Your task to perform on an android device: turn off notifications settings in the gmail app Image 0: 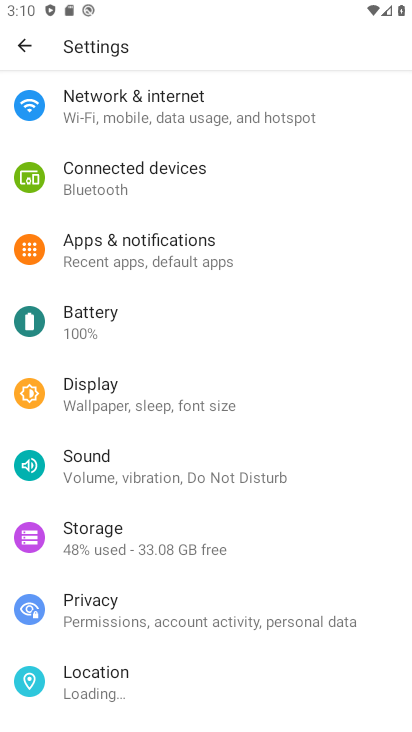
Step 0: press home button
Your task to perform on an android device: turn off notifications settings in the gmail app Image 1: 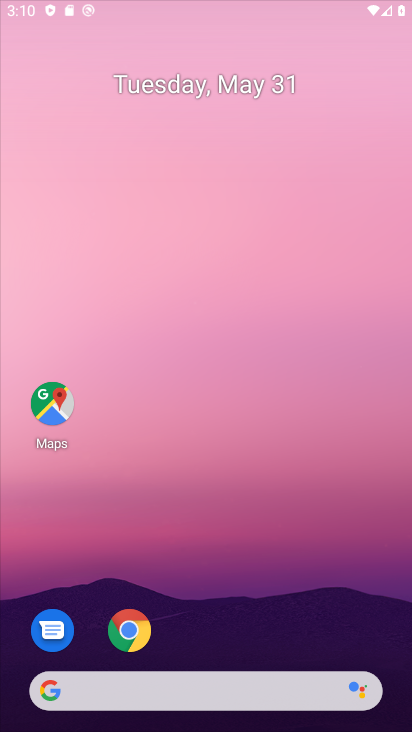
Step 1: drag from (246, 685) to (170, 20)
Your task to perform on an android device: turn off notifications settings in the gmail app Image 2: 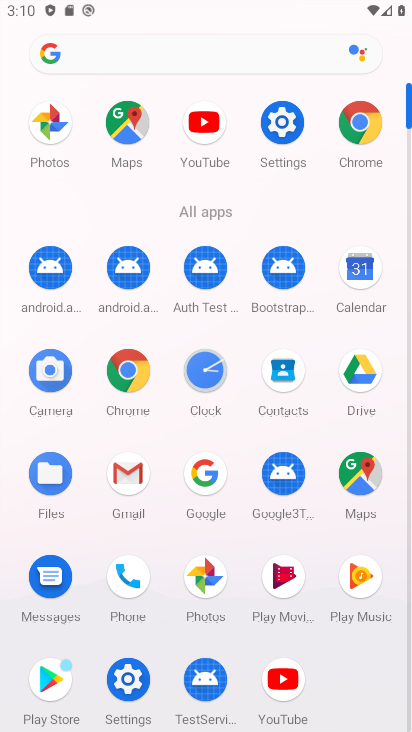
Step 2: click (131, 484)
Your task to perform on an android device: turn off notifications settings in the gmail app Image 3: 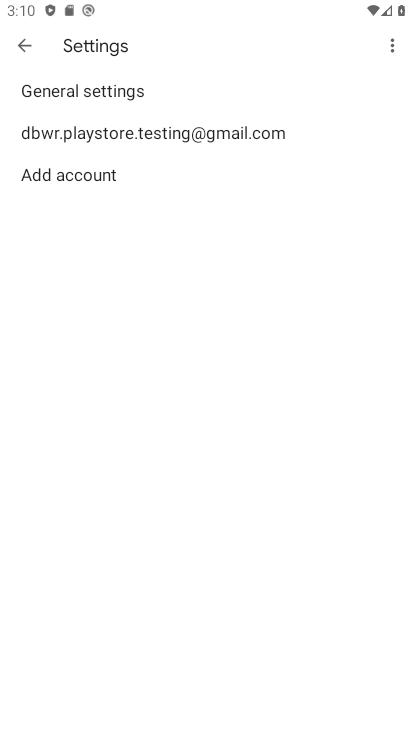
Step 3: press back button
Your task to perform on an android device: turn off notifications settings in the gmail app Image 4: 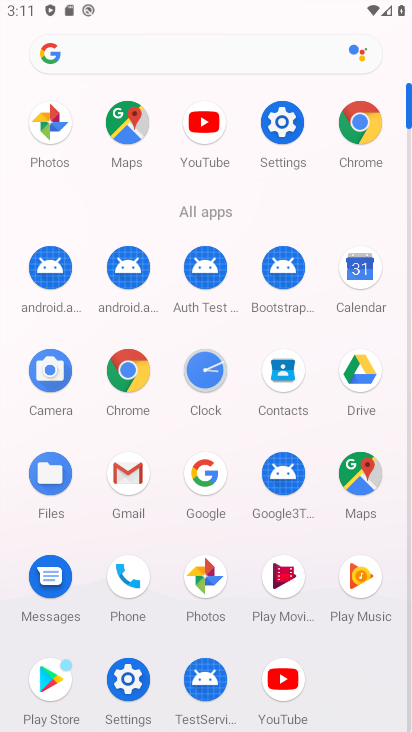
Step 4: click (286, 132)
Your task to perform on an android device: turn off notifications settings in the gmail app Image 5: 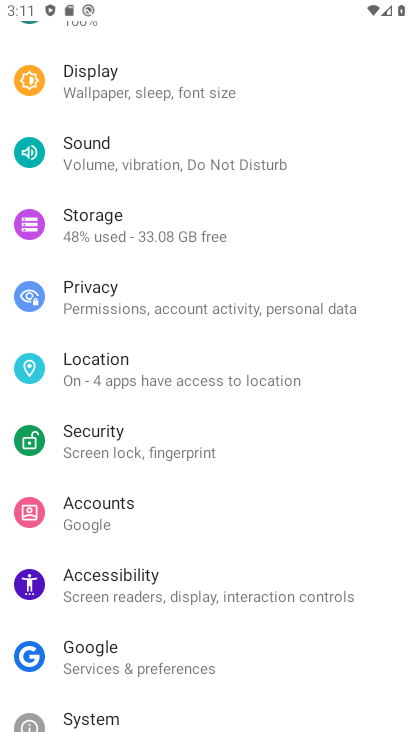
Step 5: drag from (227, 209) to (225, 728)
Your task to perform on an android device: turn off notifications settings in the gmail app Image 6: 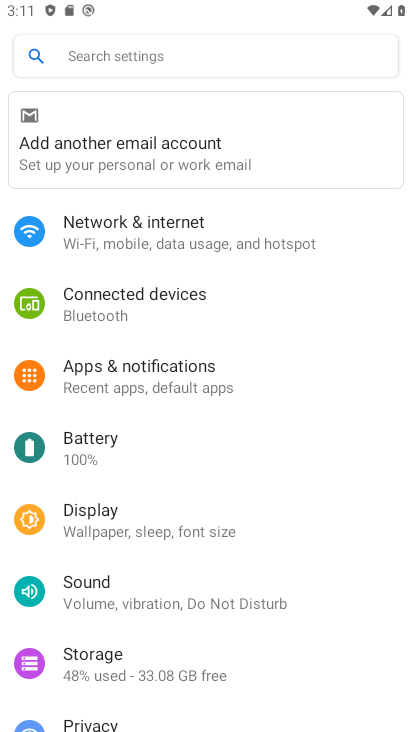
Step 6: click (199, 374)
Your task to perform on an android device: turn off notifications settings in the gmail app Image 7: 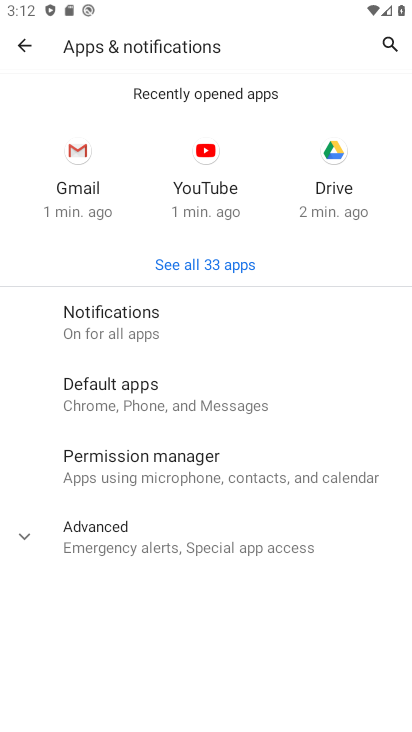
Step 7: press home button
Your task to perform on an android device: turn off notifications settings in the gmail app Image 8: 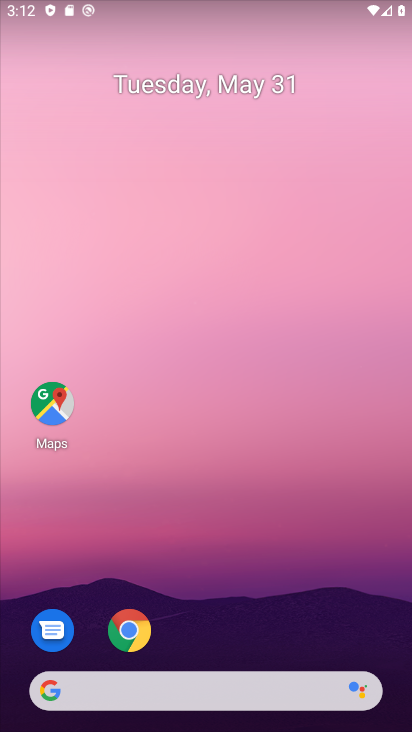
Step 8: drag from (214, 723) to (277, 130)
Your task to perform on an android device: turn off notifications settings in the gmail app Image 9: 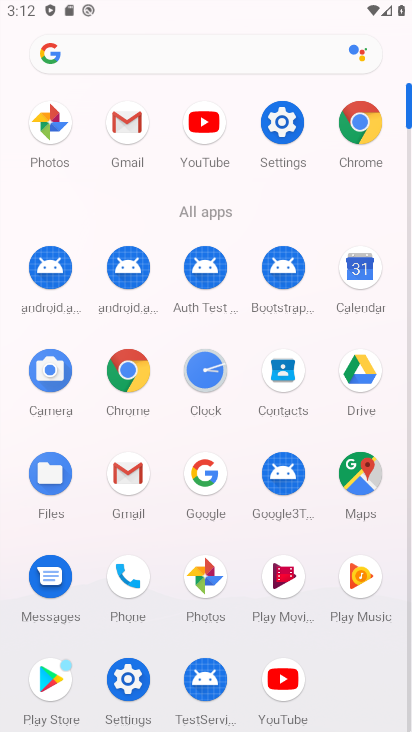
Step 9: click (121, 479)
Your task to perform on an android device: turn off notifications settings in the gmail app Image 10: 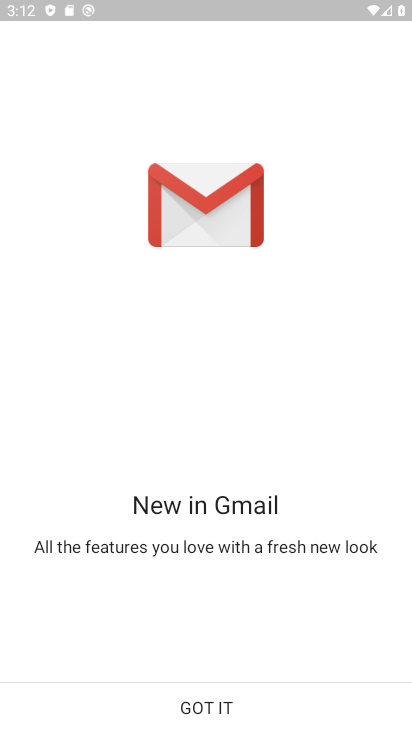
Step 10: click (178, 720)
Your task to perform on an android device: turn off notifications settings in the gmail app Image 11: 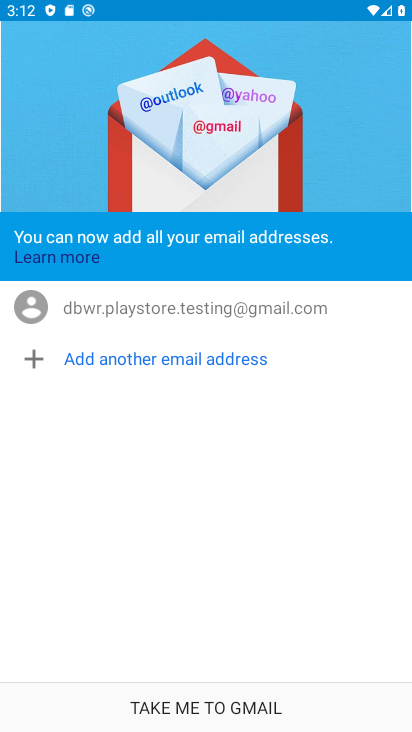
Step 11: click (187, 711)
Your task to perform on an android device: turn off notifications settings in the gmail app Image 12: 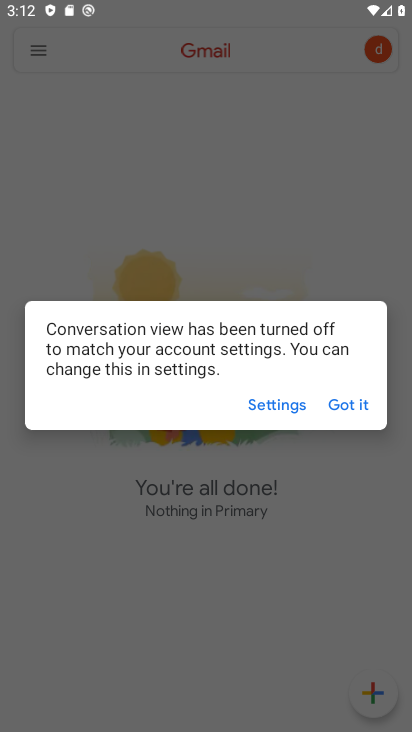
Step 12: click (340, 406)
Your task to perform on an android device: turn off notifications settings in the gmail app Image 13: 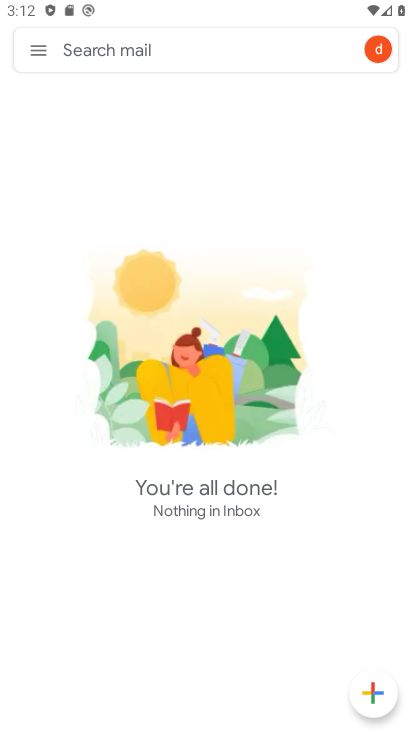
Step 13: click (35, 38)
Your task to perform on an android device: turn off notifications settings in the gmail app Image 14: 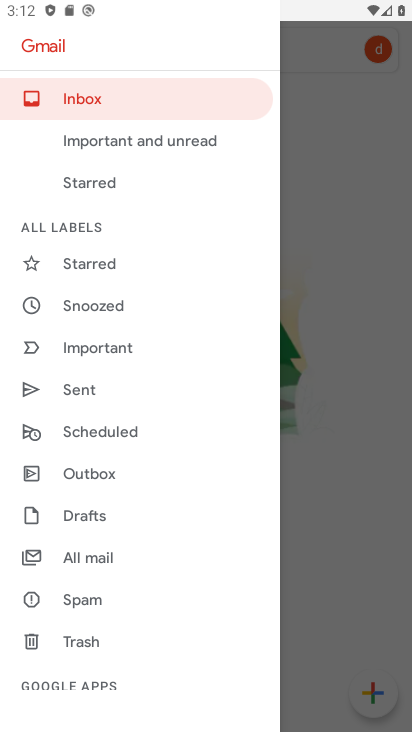
Step 14: drag from (136, 635) to (186, 58)
Your task to perform on an android device: turn off notifications settings in the gmail app Image 15: 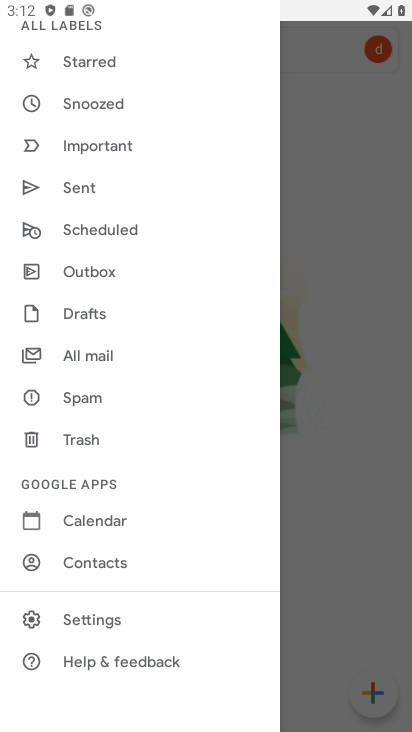
Step 15: click (107, 614)
Your task to perform on an android device: turn off notifications settings in the gmail app Image 16: 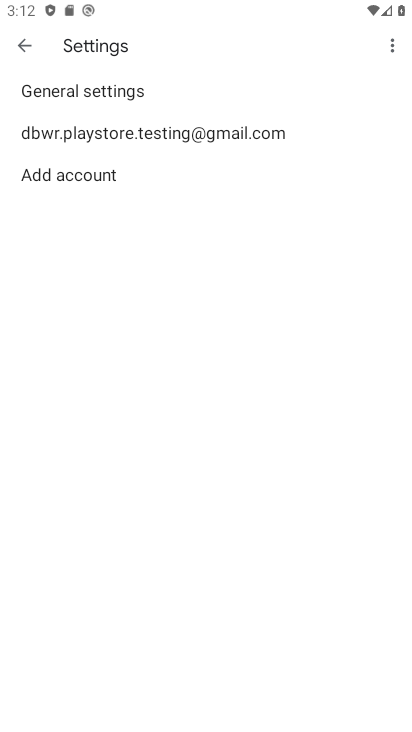
Step 16: click (202, 136)
Your task to perform on an android device: turn off notifications settings in the gmail app Image 17: 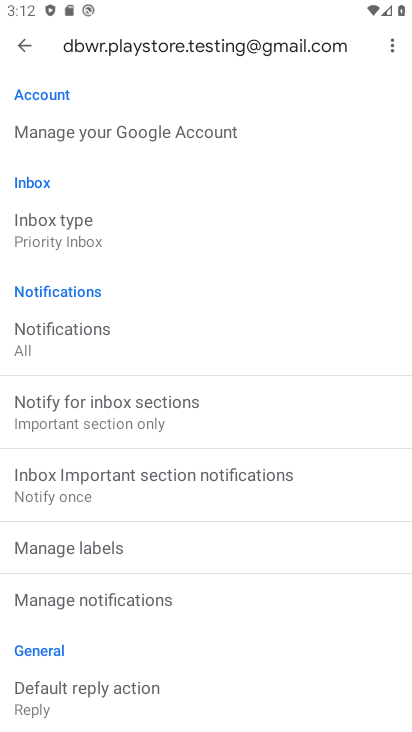
Step 17: click (89, 603)
Your task to perform on an android device: turn off notifications settings in the gmail app Image 18: 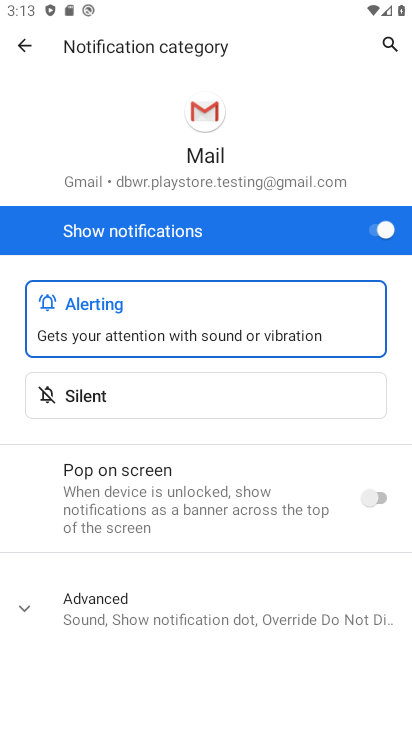
Step 18: click (371, 231)
Your task to perform on an android device: turn off notifications settings in the gmail app Image 19: 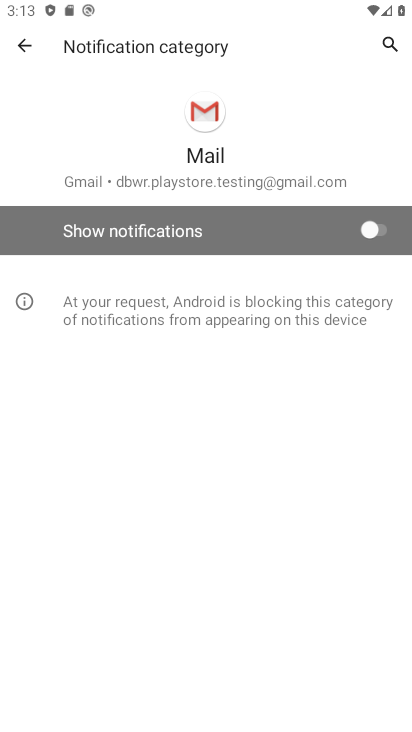
Step 19: press home button
Your task to perform on an android device: turn off notifications settings in the gmail app Image 20: 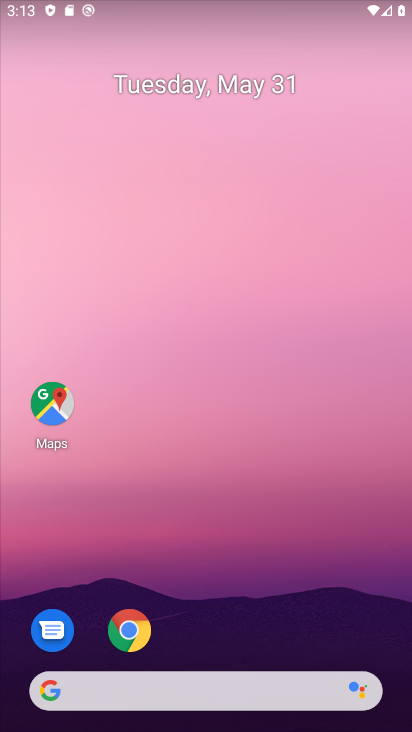
Step 20: drag from (197, 692) to (336, 33)
Your task to perform on an android device: turn off notifications settings in the gmail app Image 21: 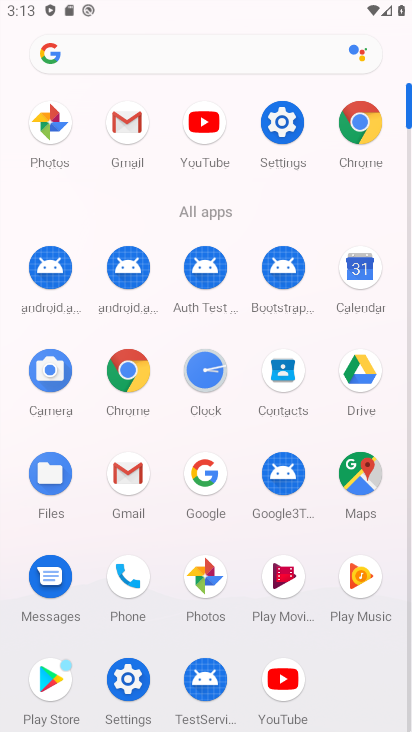
Step 21: click (130, 455)
Your task to perform on an android device: turn off notifications settings in the gmail app Image 22: 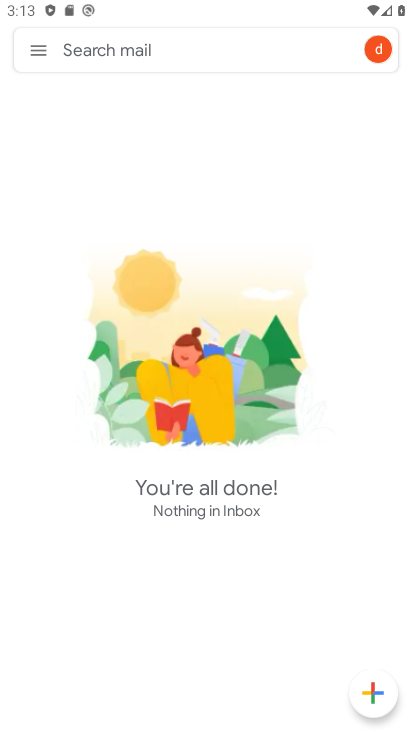
Step 22: click (49, 42)
Your task to perform on an android device: turn off notifications settings in the gmail app Image 23: 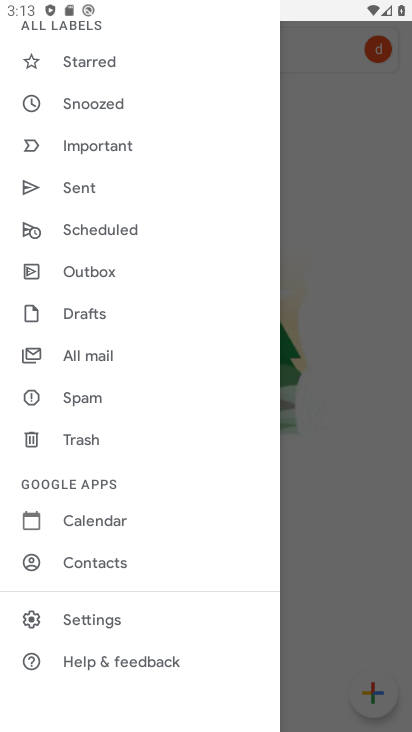
Step 23: click (148, 622)
Your task to perform on an android device: turn off notifications settings in the gmail app Image 24: 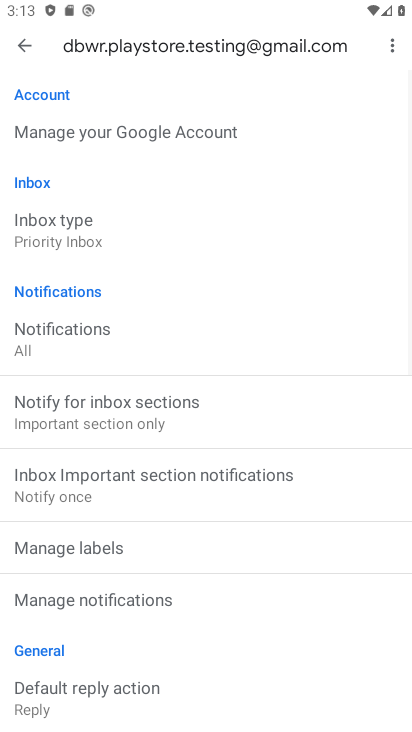
Step 24: click (114, 594)
Your task to perform on an android device: turn off notifications settings in the gmail app Image 25: 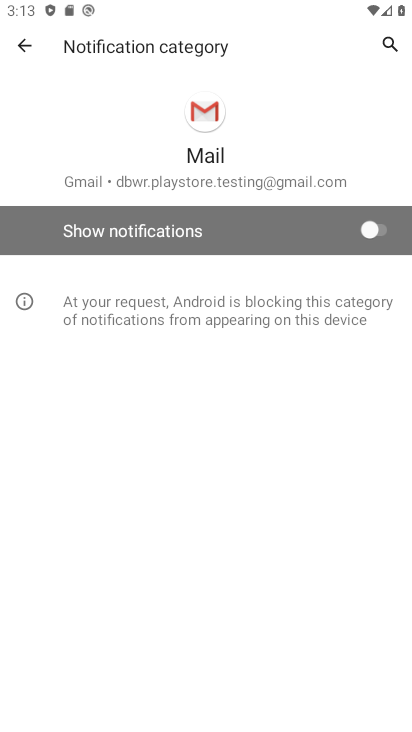
Step 25: task complete